Your task to perform on an android device: Go to calendar. Show me events next week Image 0: 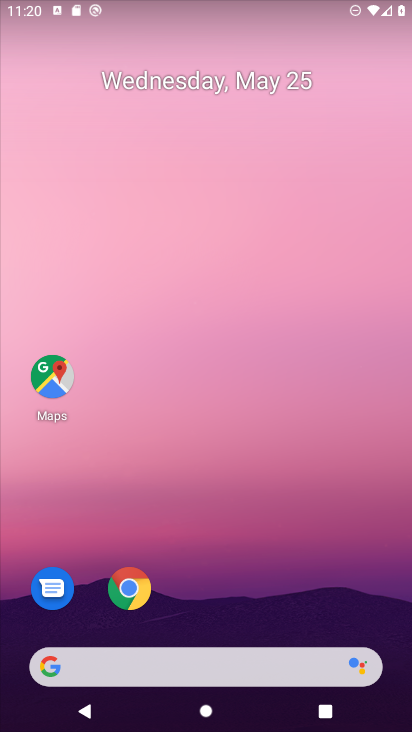
Step 0: drag from (62, 521) to (331, 103)
Your task to perform on an android device: Go to calendar. Show me events next week Image 1: 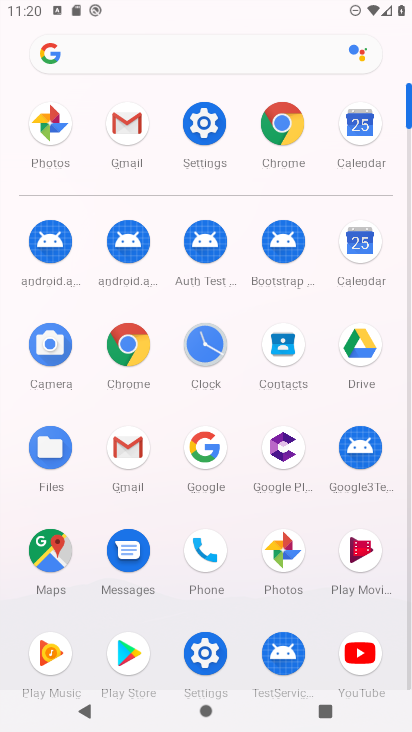
Step 1: click (357, 127)
Your task to perform on an android device: Go to calendar. Show me events next week Image 2: 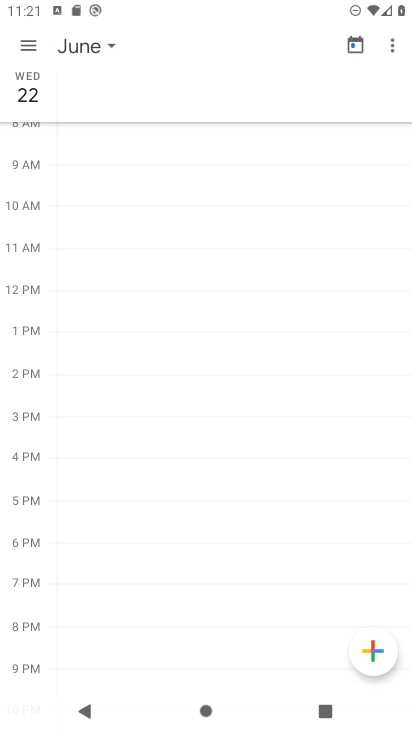
Step 2: click (104, 40)
Your task to perform on an android device: Go to calendar. Show me events next week Image 3: 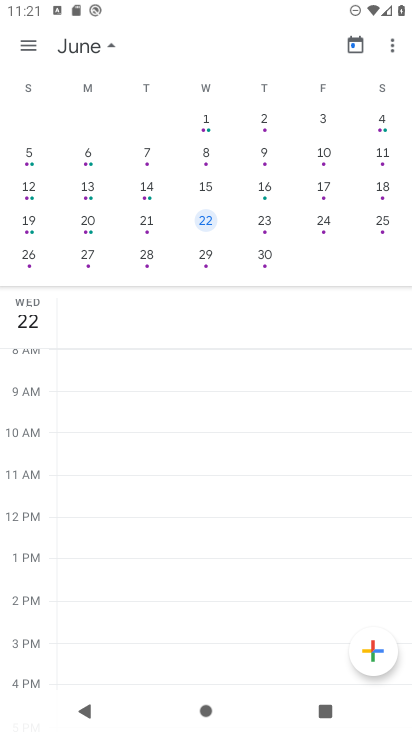
Step 3: drag from (13, 200) to (403, 243)
Your task to perform on an android device: Go to calendar. Show me events next week Image 4: 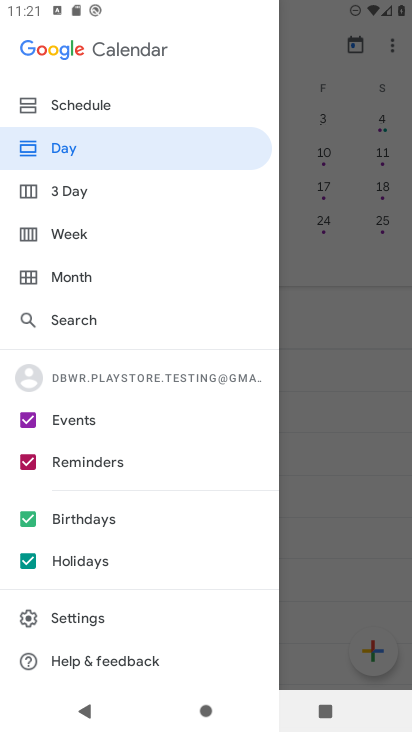
Step 4: click (306, 366)
Your task to perform on an android device: Go to calendar. Show me events next week Image 5: 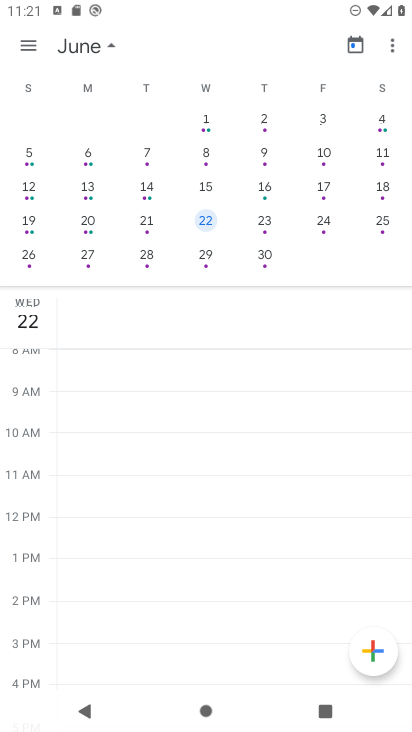
Step 5: drag from (60, 207) to (410, 101)
Your task to perform on an android device: Go to calendar. Show me events next week Image 6: 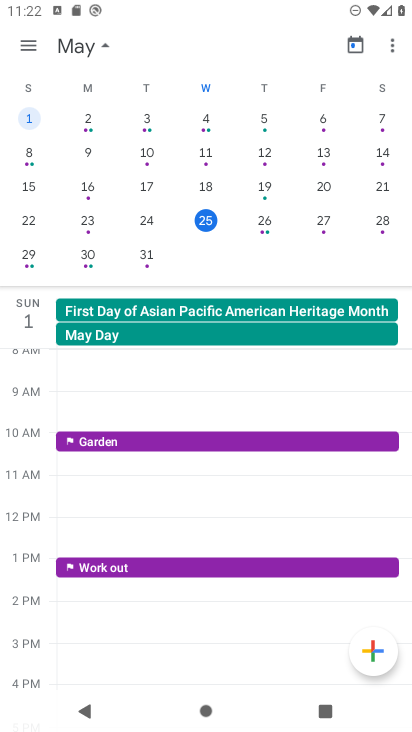
Step 6: click (94, 255)
Your task to perform on an android device: Go to calendar. Show me events next week Image 7: 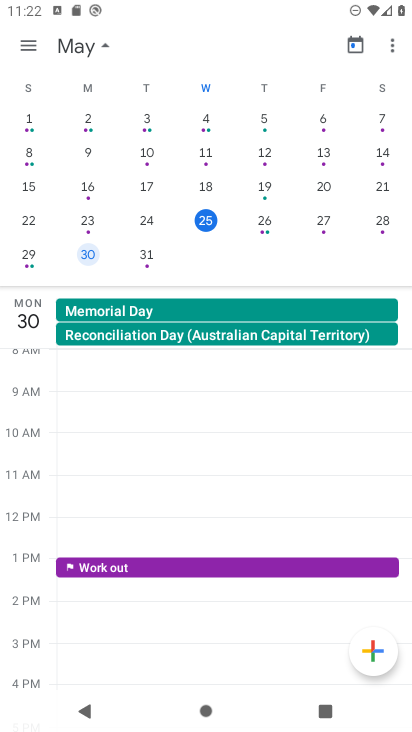
Step 7: task complete